Your task to perform on an android device: stop showing notifications on the lock screen Image 0: 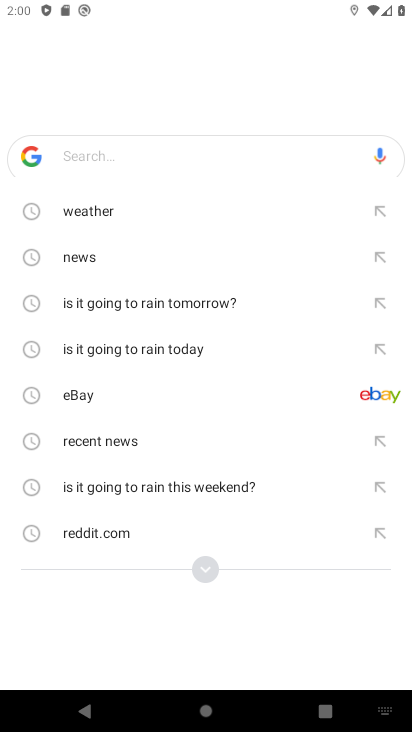
Step 0: press home button
Your task to perform on an android device: stop showing notifications on the lock screen Image 1: 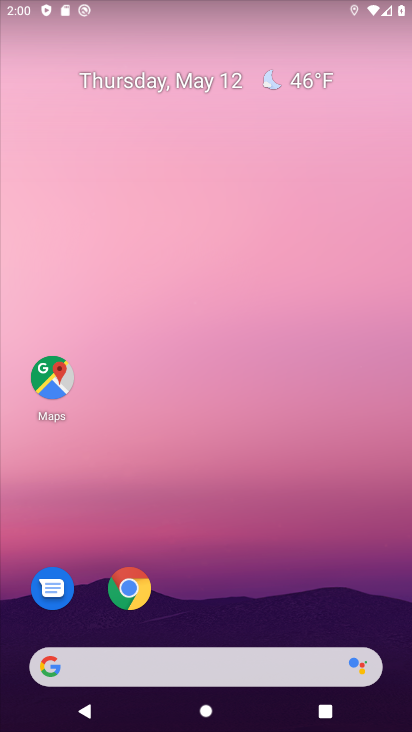
Step 1: drag from (390, 678) to (221, 102)
Your task to perform on an android device: stop showing notifications on the lock screen Image 2: 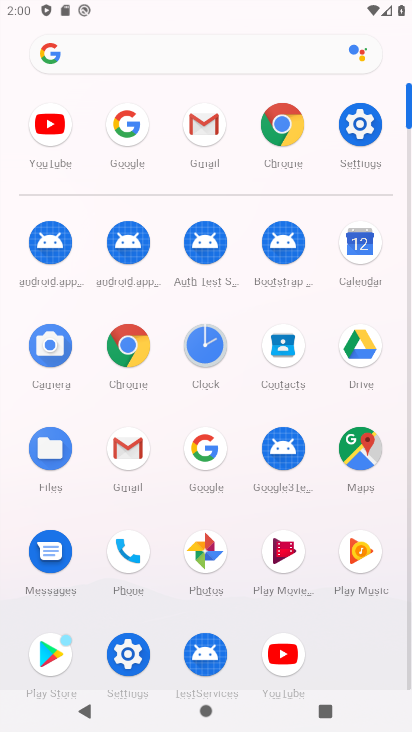
Step 2: click (127, 640)
Your task to perform on an android device: stop showing notifications on the lock screen Image 3: 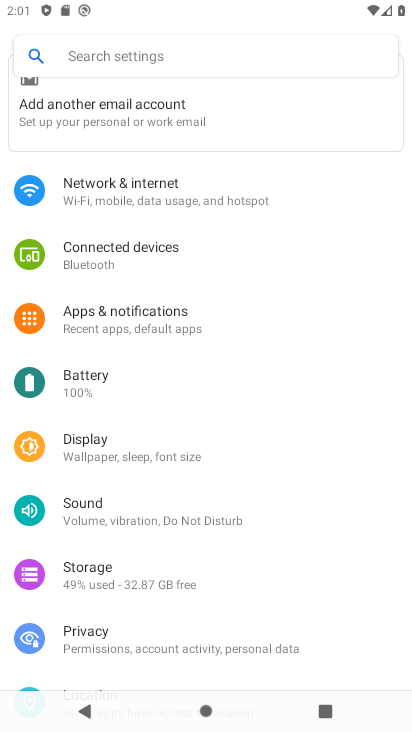
Step 3: drag from (107, 514) to (164, 262)
Your task to perform on an android device: stop showing notifications on the lock screen Image 4: 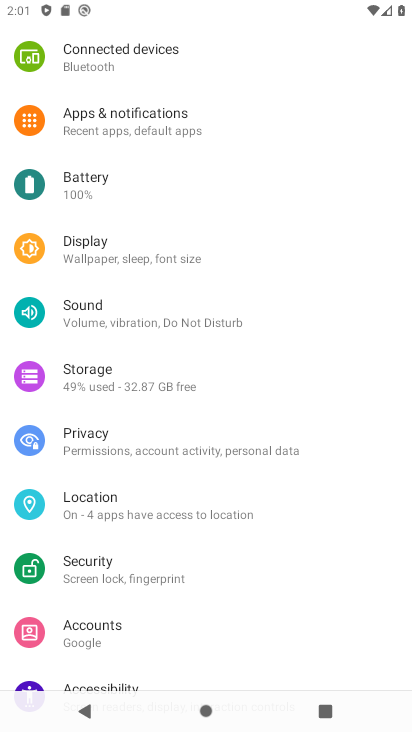
Step 4: click (110, 487)
Your task to perform on an android device: stop showing notifications on the lock screen Image 5: 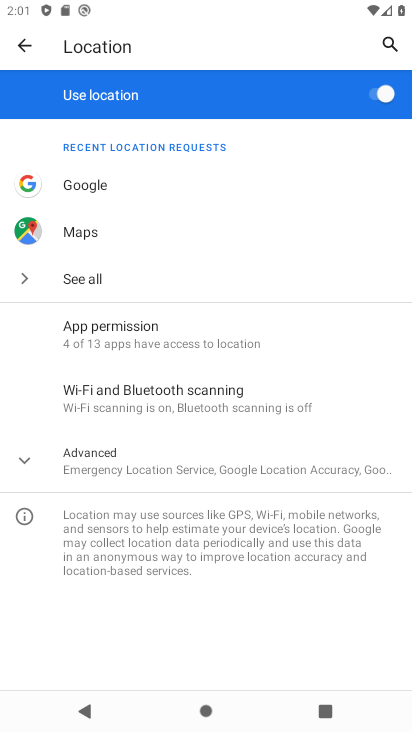
Step 5: click (116, 452)
Your task to perform on an android device: stop showing notifications on the lock screen Image 6: 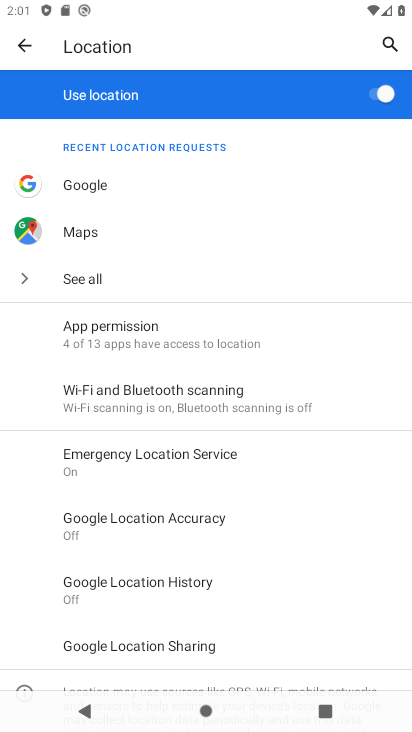
Step 6: task complete